Your task to perform on an android device: Open settings on Google Maps Image 0: 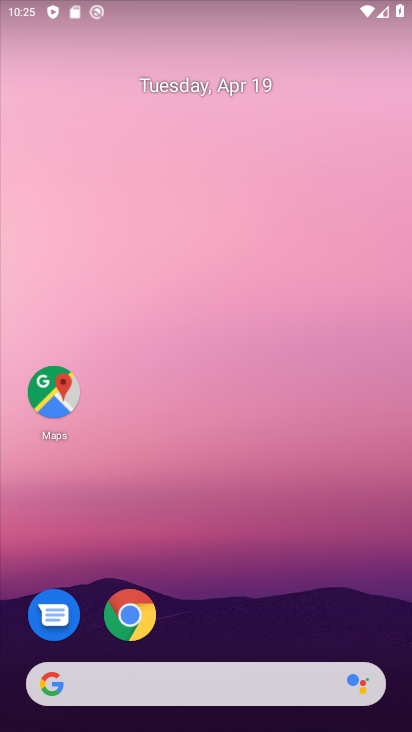
Step 0: drag from (270, 513) to (288, 259)
Your task to perform on an android device: Open settings on Google Maps Image 1: 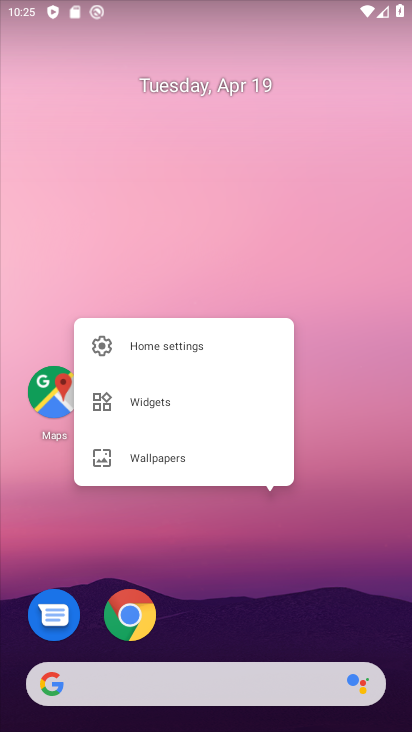
Step 1: click (260, 540)
Your task to perform on an android device: Open settings on Google Maps Image 2: 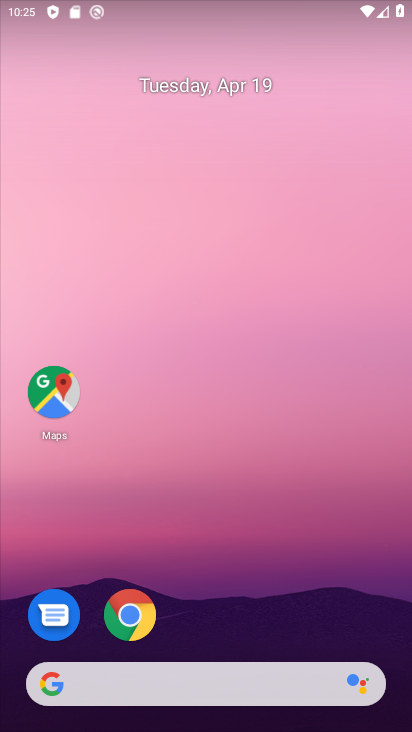
Step 2: click (51, 394)
Your task to perform on an android device: Open settings on Google Maps Image 3: 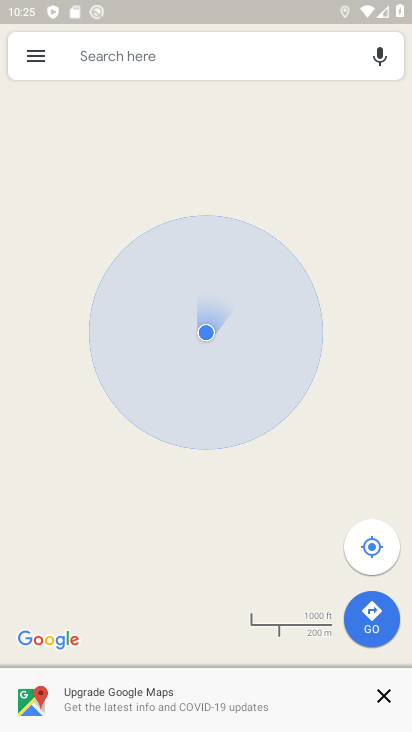
Step 3: click (36, 51)
Your task to perform on an android device: Open settings on Google Maps Image 4: 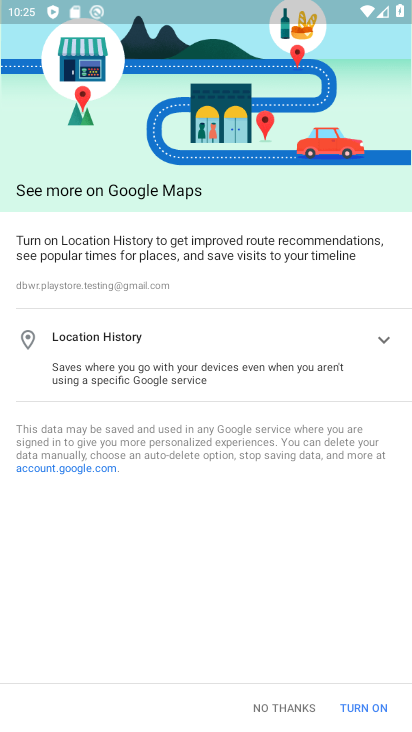
Step 4: click (283, 705)
Your task to perform on an android device: Open settings on Google Maps Image 5: 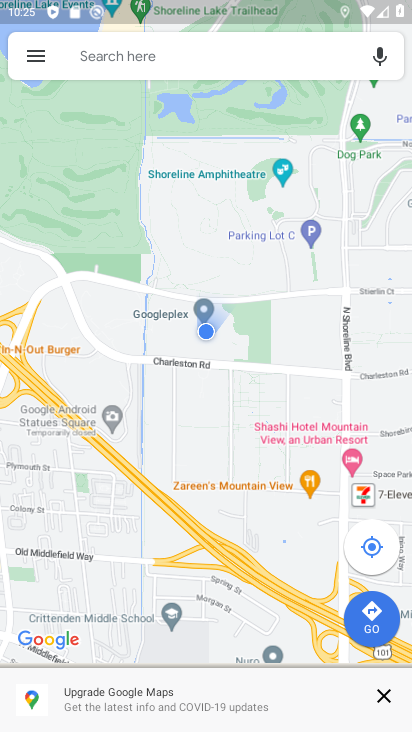
Step 5: click (35, 58)
Your task to perform on an android device: Open settings on Google Maps Image 6: 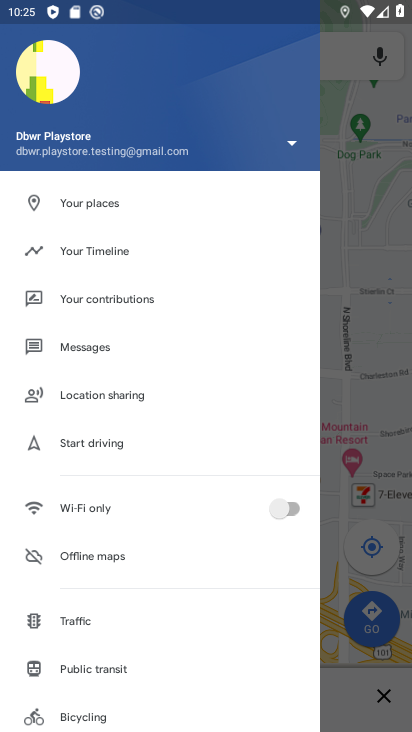
Step 6: drag from (175, 628) to (139, 270)
Your task to perform on an android device: Open settings on Google Maps Image 7: 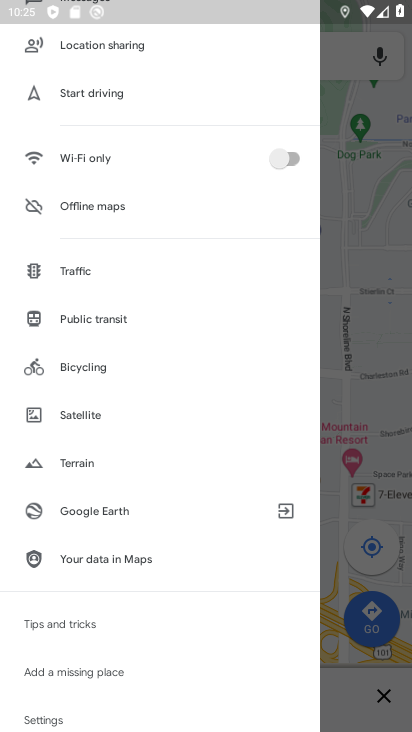
Step 7: click (33, 716)
Your task to perform on an android device: Open settings on Google Maps Image 8: 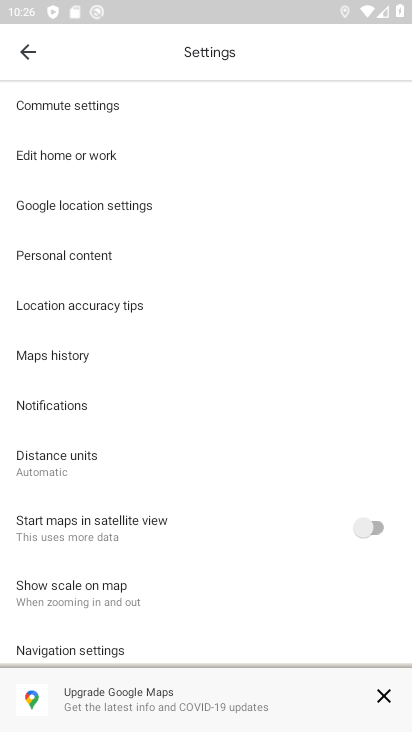
Step 8: task complete